Your task to perform on an android device: What's on my calendar tomorrow? Image 0: 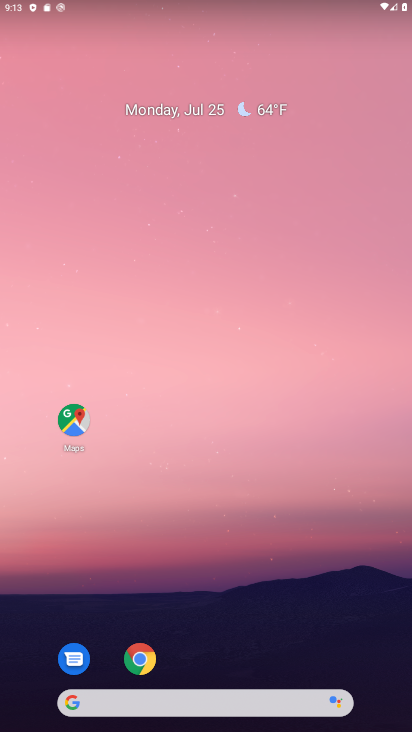
Step 0: press home button
Your task to perform on an android device: What's on my calendar tomorrow? Image 1: 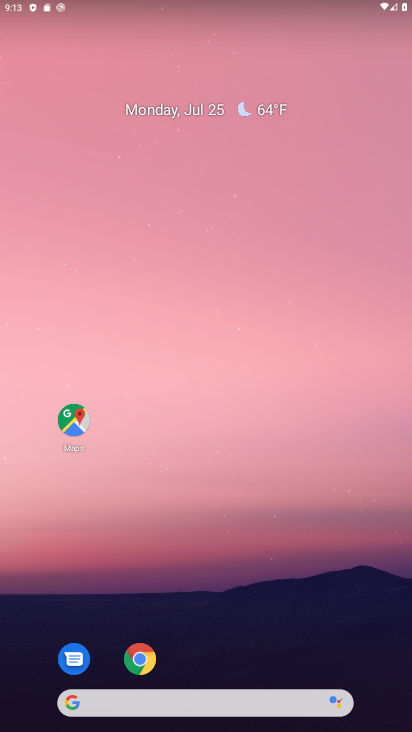
Step 1: drag from (341, 656) to (386, 207)
Your task to perform on an android device: What's on my calendar tomorrow? Image 2: 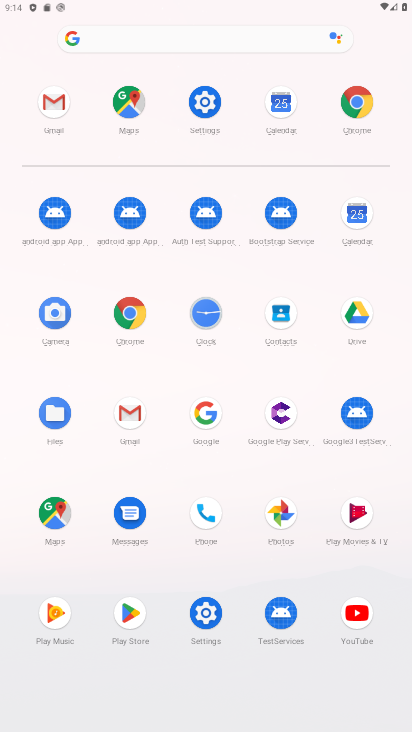
Step 2: click (357, 234)
Your task to perform on an android device: What's on my calendar tomorrow? Image 3: 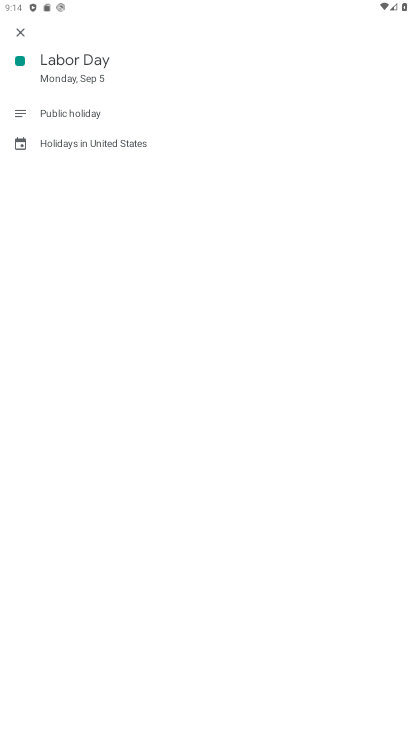
Step 3: press back button
Your task to perform on an android device: What's on my calendar tomorrow? Image 4: 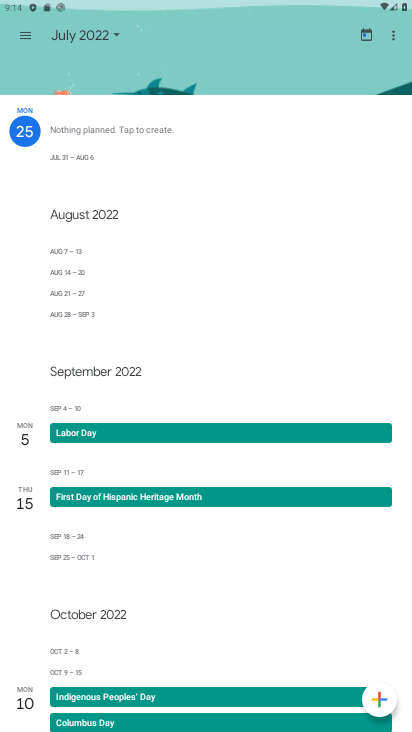
Step 4: click (120, 31)
Your task to perform on an android device: What's on my calendar tomorrow? Image 5: 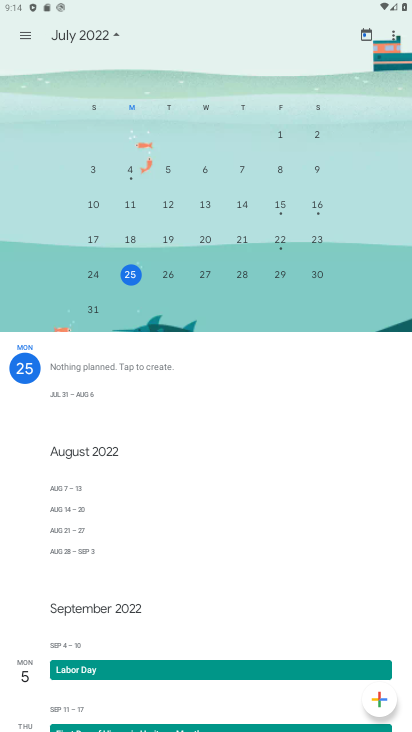
Step 5: click (207, 275)
Your task to perform on an android device: What's on my calendar tomorrow? Image 6: 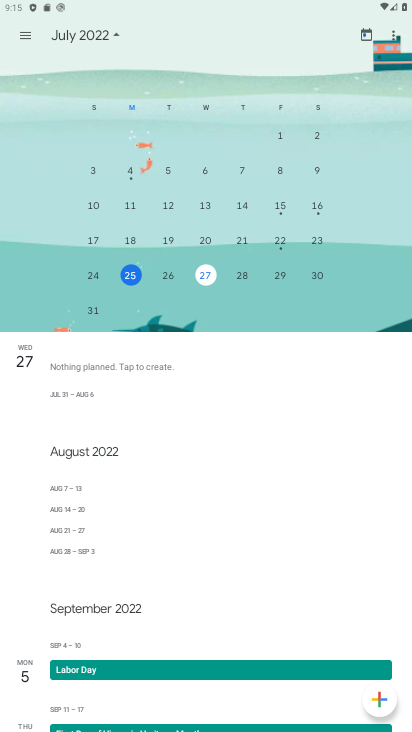
Step 6: task complete